Your task to perform on an android device: turn off notifications settings in the gmail app Image 0: 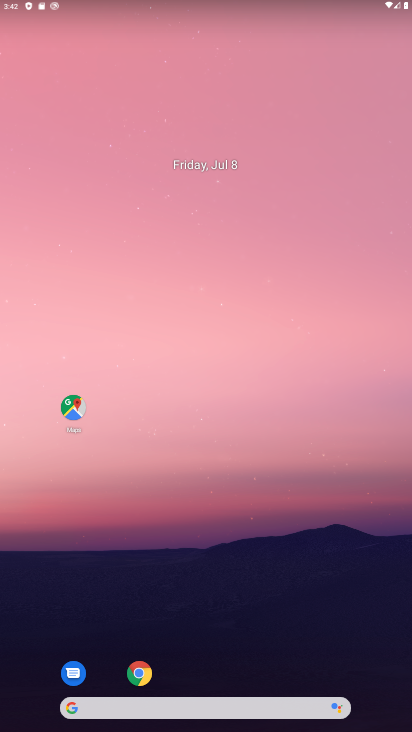
Step 0: drag from (258, 674) to (352, 134)
Your task to perform on an android device: turn off notifications settings in the gmail app Image 1: 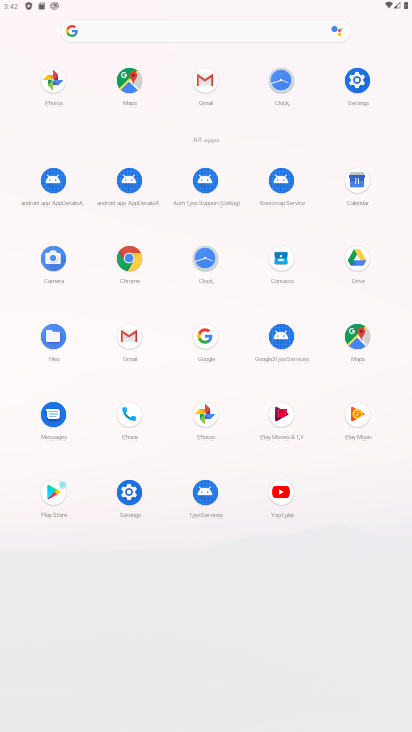
Step 1: click (135, 334)
Your task to perform on an android device: turn off notifications settings in the gmail app Image 2: 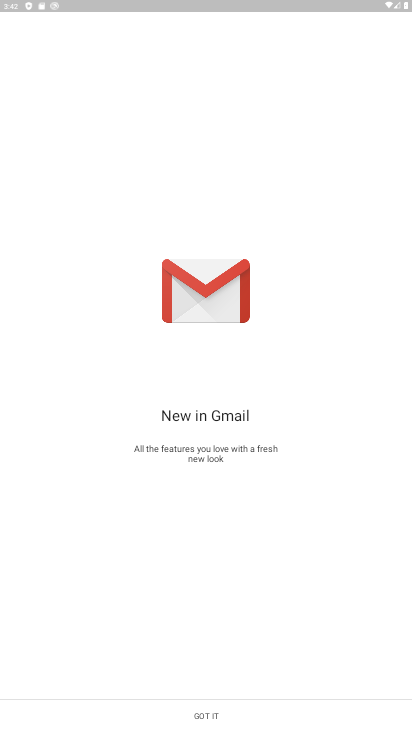
Step 2: click (209, 703)
Your task to perform on an android device: turn off notifications settings in the gmail app Image 3: 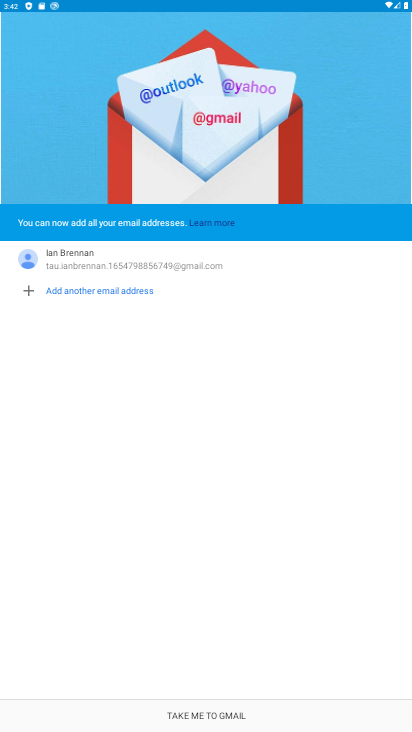
Step 3: click (223, 717)
Your task to perform on an android device: turn off notifications settings in the gmail app Image 4: 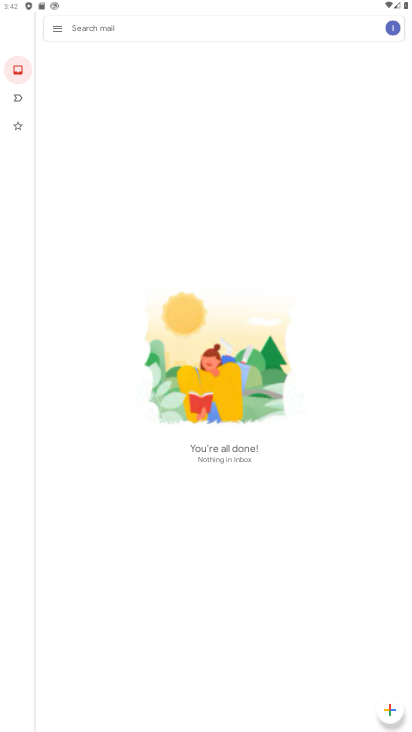
Step 4: click (55, 30)
Your task to perform on an android device: turn off notifications settings in the gmail app Image 5: 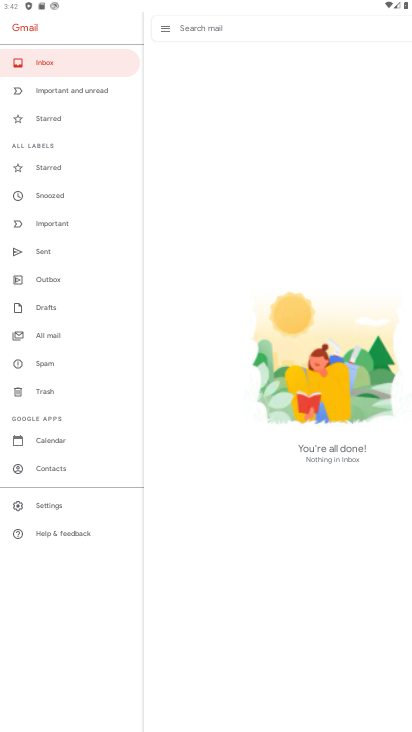
Step 5: click (47, 512)
Your task to perform on an android device: turn off notifications settings in the gmail app Image 6: 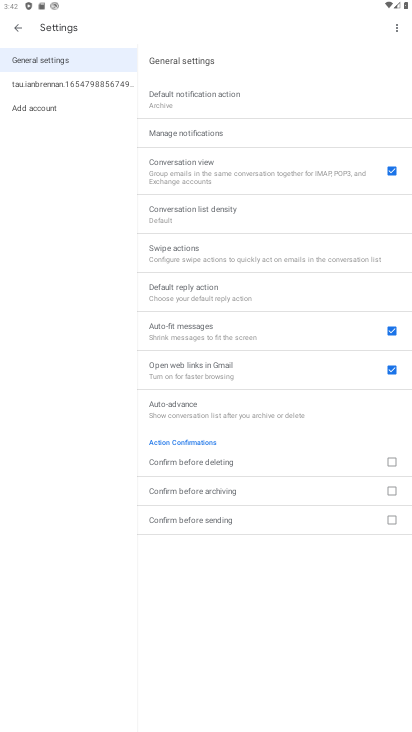
Step 6: click (88, 83)
Your task to perform on an android device: turn off notifications settings in the gmail app Image 7: 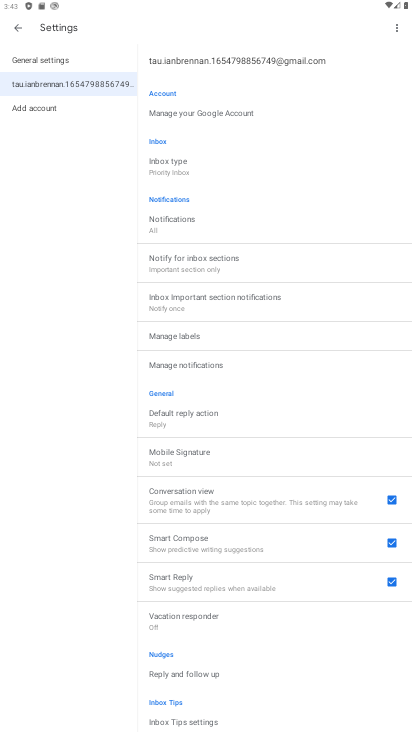
Step 7: click (239, 365)
Your task to perform on an android device: turn off notifications settings in the gmail app Image 8: 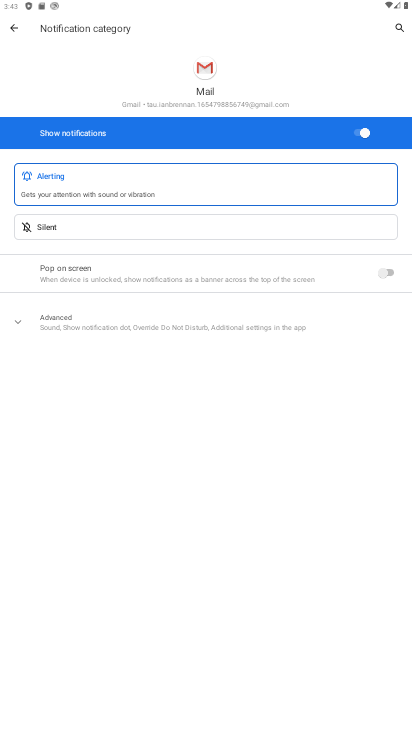
Step 8: click (361, 127)
Your task to perform on an android device: turn off notifications settings in the gmail app Image 9: 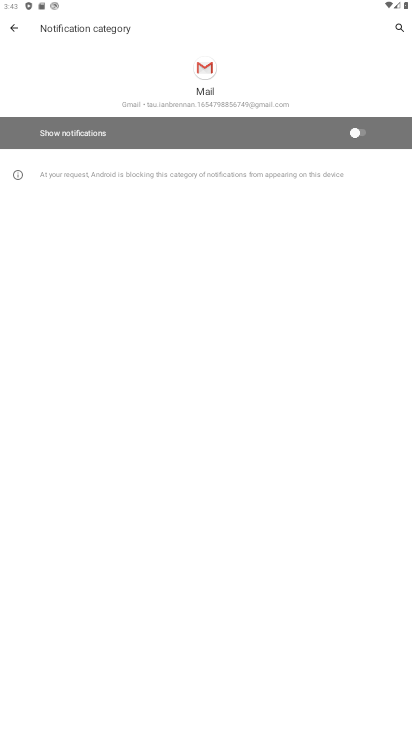
Step 9: task complete